Your task to perform on an android device: Open location settings Image 0: 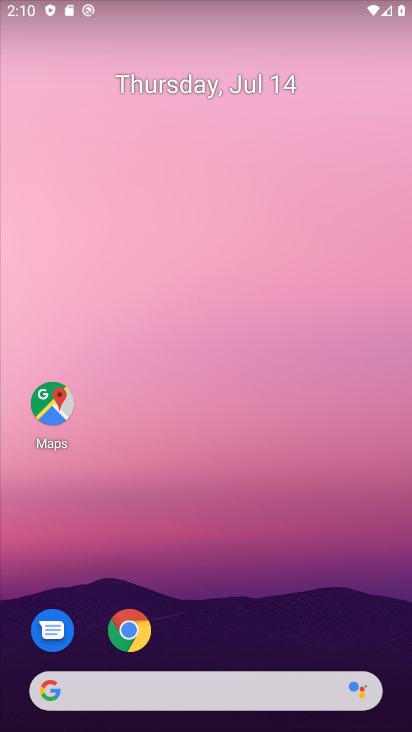
Step 0: press home button
Your task to perform on an android device: Open location settings Image 1: 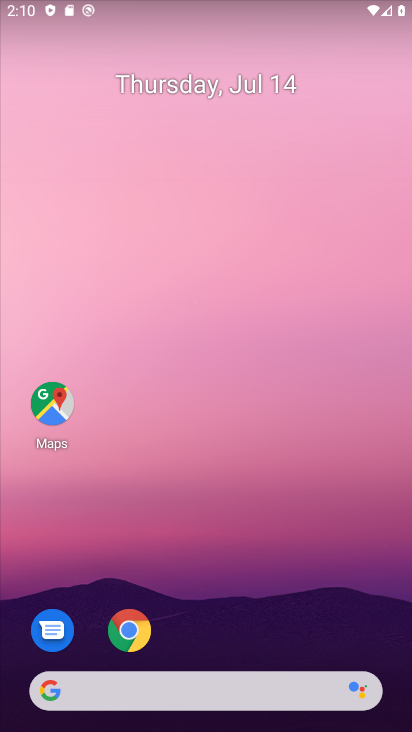
Step 1: drag from (242, 642) to (246, 200)
Your task to perform on an android device: Open location settings Image 2: 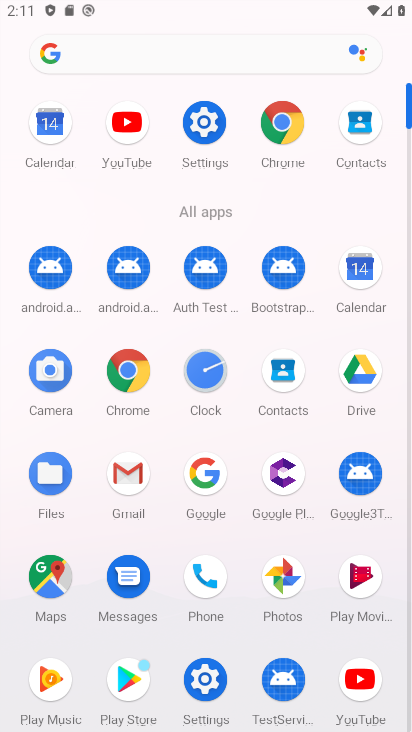
Step 2: click (202, 113)
Your task to perform on an android device: Open location settings Image 3: 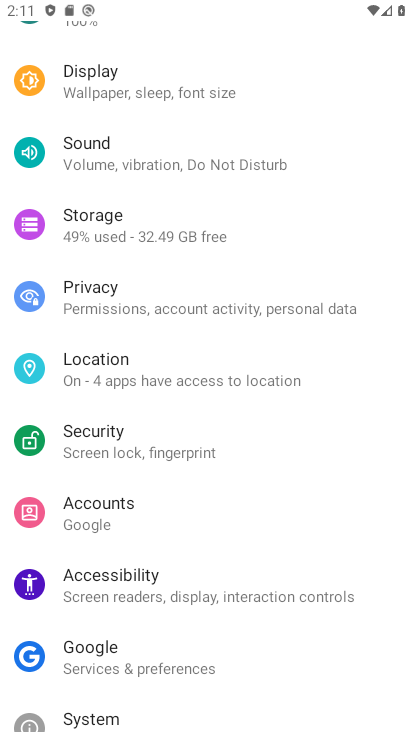
Step 3: click (141, 364)
Your task to perform on an android device: Open location settings Image 4: 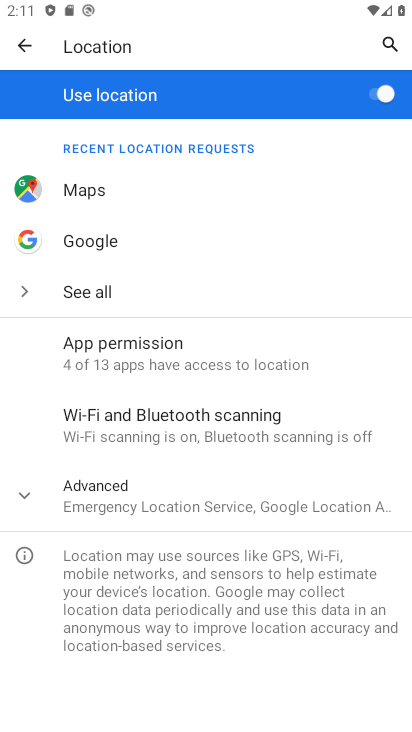
Step 4: click (34, 488)
Your task to perform on an android device: Open location settings Image 5: 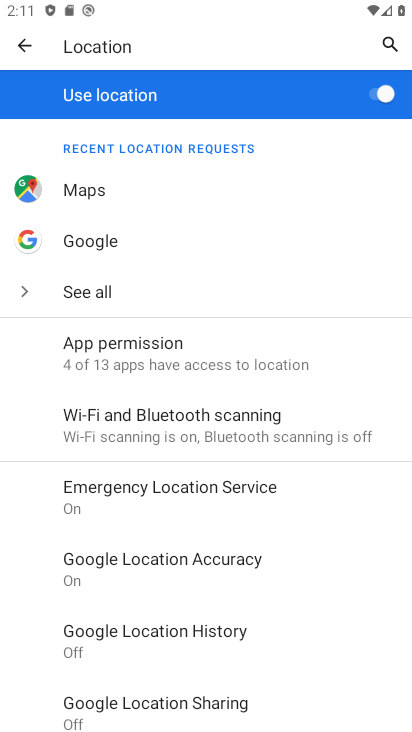
Step 5: task complete